Your task to perform on an android device: What's on my calendar tomorrow? Image 0: 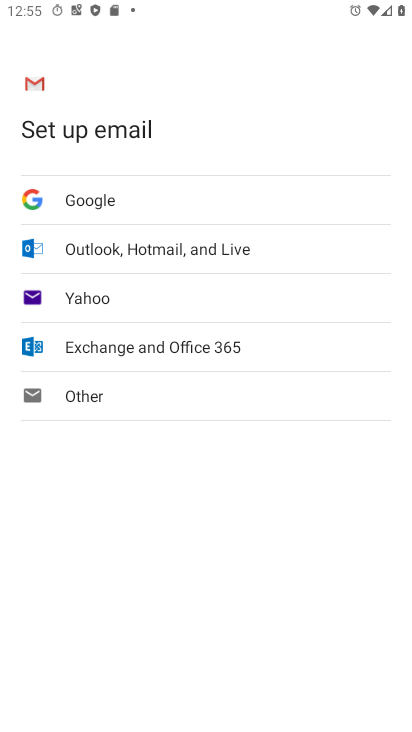
Step 0: press home button
Your task to perform on an android device: What's on my calendar tomorrow? Image 1: 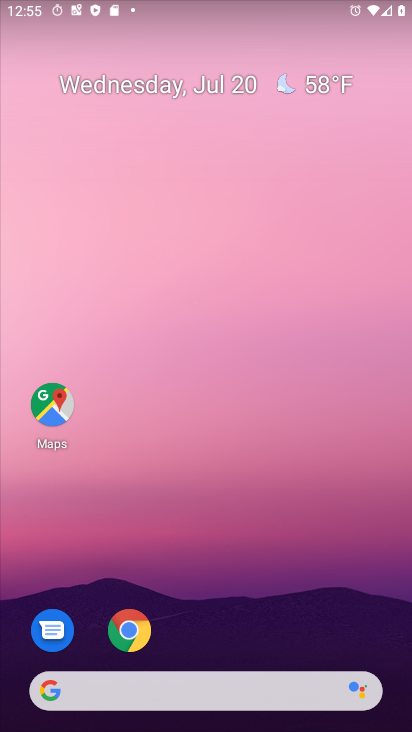
Step 1: drag from (150, 685) to (290, 55)
Your task to perform on an android device: What's on my calendar tomorrow? Image 2: 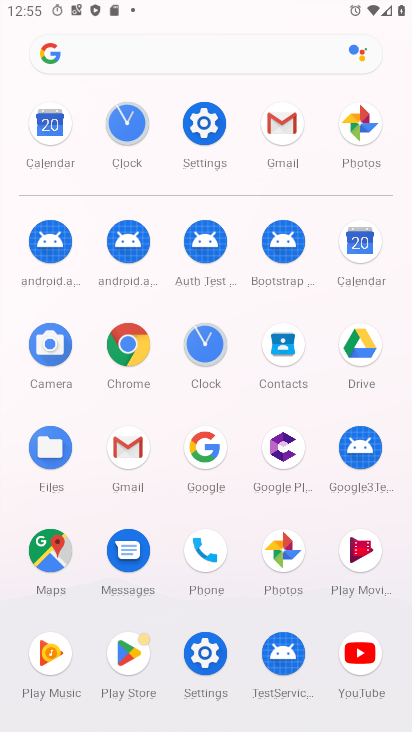
Step 2: click (50, 132)
Your task to perform on an android device: What's on my calendar tomorrow? Image 3: 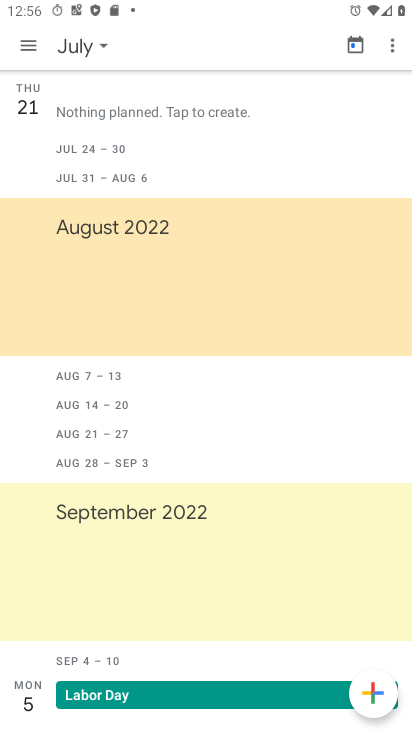
Step 3: task complete